Your task to perform on an android device: toggle pop-ups in chrome Image 0: 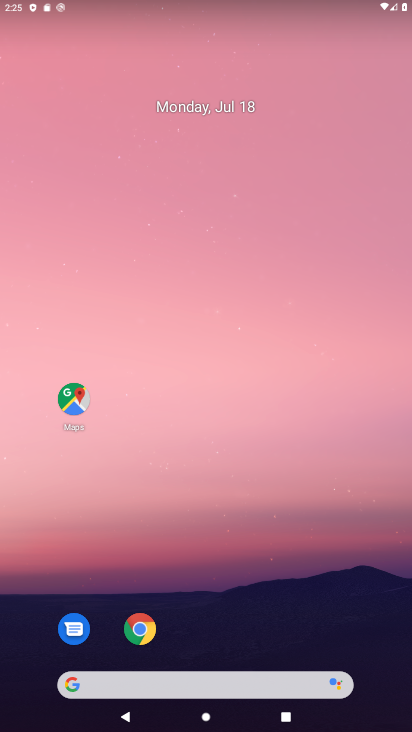
Step 0: drag from (204, 662) to (283, 120)
Your task to perform on an android device: toggle pop-ups in chrome Image 1: 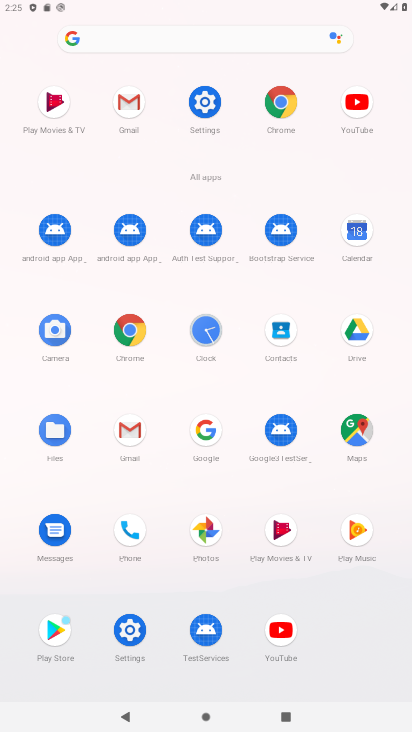
Step 1: click (126, 330)
Your task to perform on an android device: toggle pop-ups in chrome Image 2: 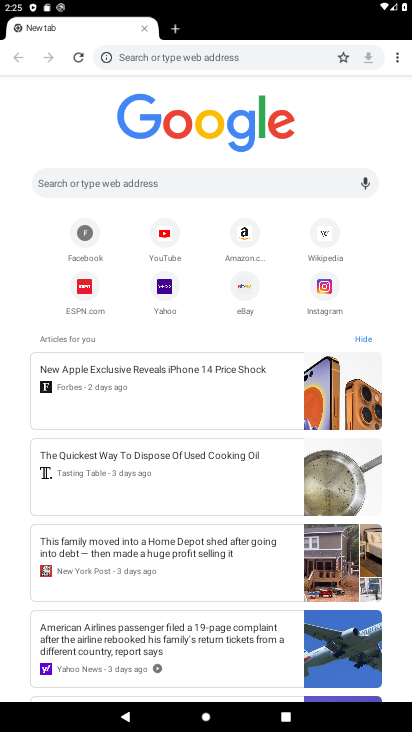
Step 2: drag from (401, 60) to (320, 257)
Your task to perform on an android device: toggle pop-ups in chrome Image 3: 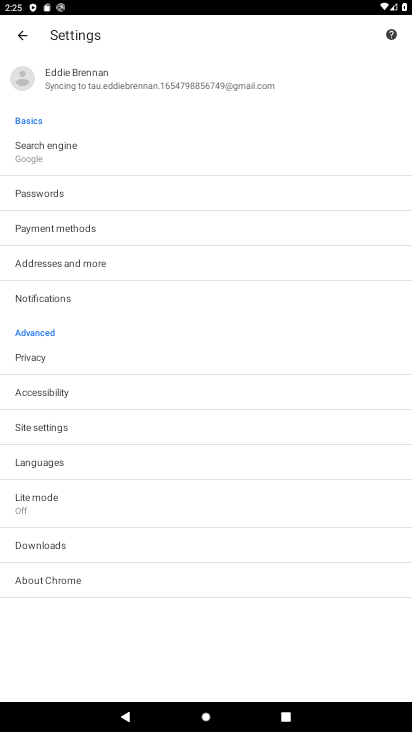
Step 3: click (85, 428)
Your task to perform on an android device: toggle pop-ups in chrome Image 4: 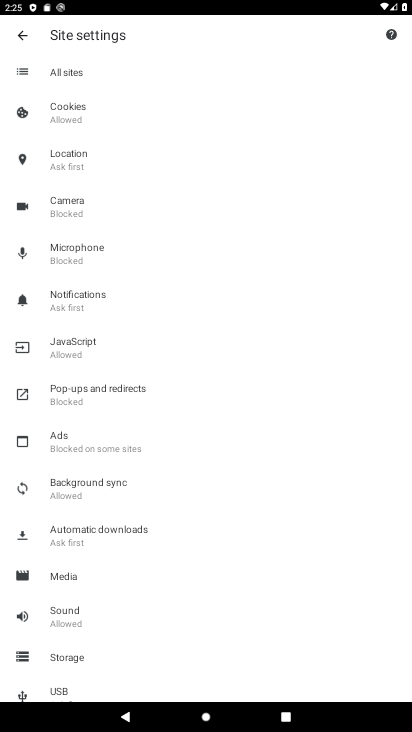
Step 4: click (109, 399)
Your task to perform on an android device: toggle pop-ups in chrome Image 5: 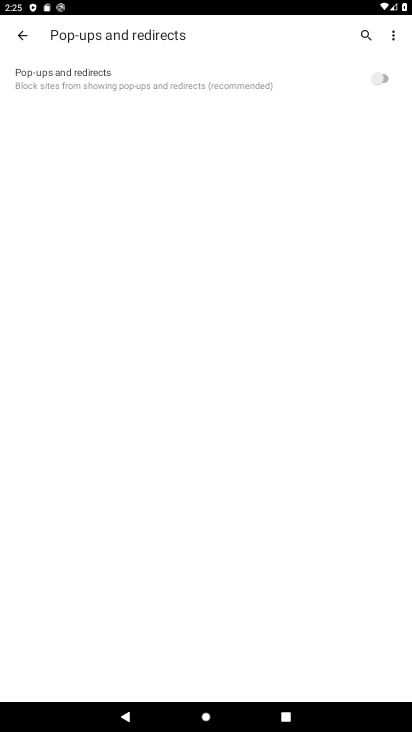
Step 5: click (395, 73)
Your task to perform on an android device: toggle pop-ups in chrome Image 6: 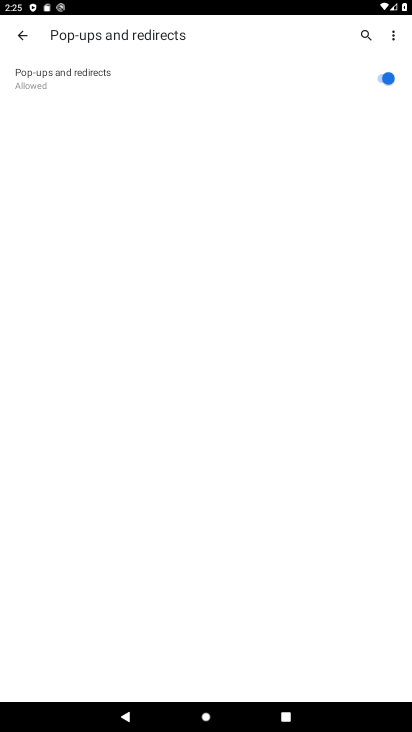
Step 6: task complete